Your task to perform on an android device: Go to accessibility settings Image 0: 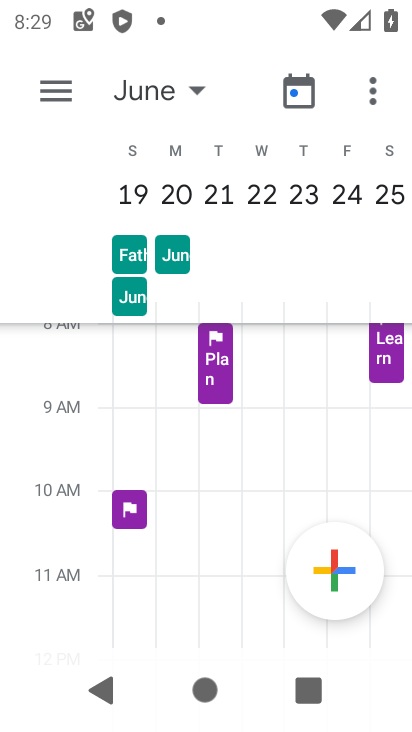
Step 0: press home button
Your task to perform on an android device: Go to accessibility settings Image 1: 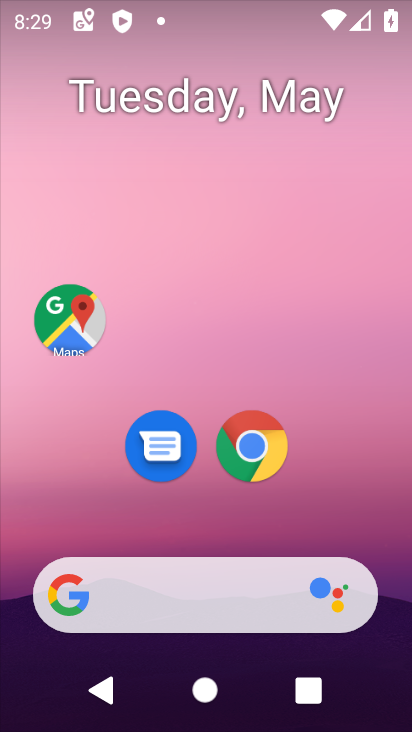
Step 1: drag from (351, 520) to (371, 17)
Your task to perform on an android device: Go to accessibility settings Image 2: 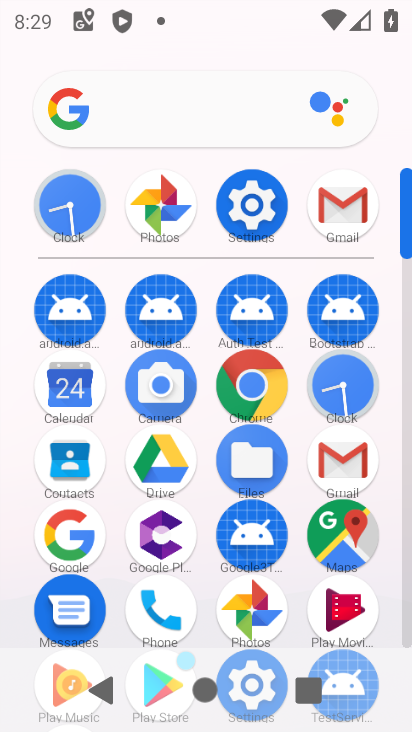
Step 2: click (256, 208)
Your task to perform on an android device: Go to accessibility settings Image 3: 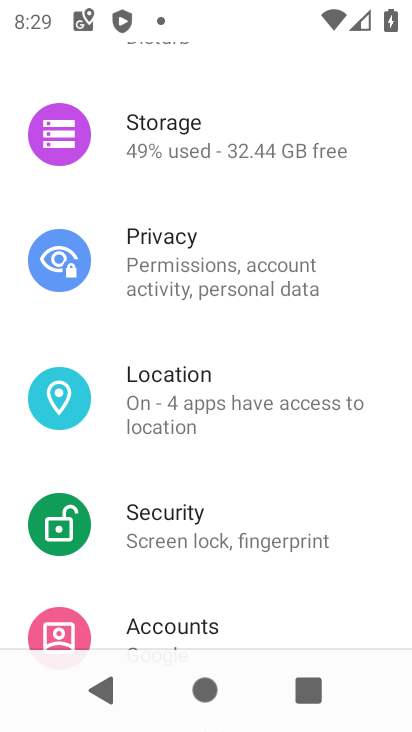
Step 3: drag from (326, 467) to (335, 212)
Your task to perform on an android device: Go to accessibility settings Image 4: 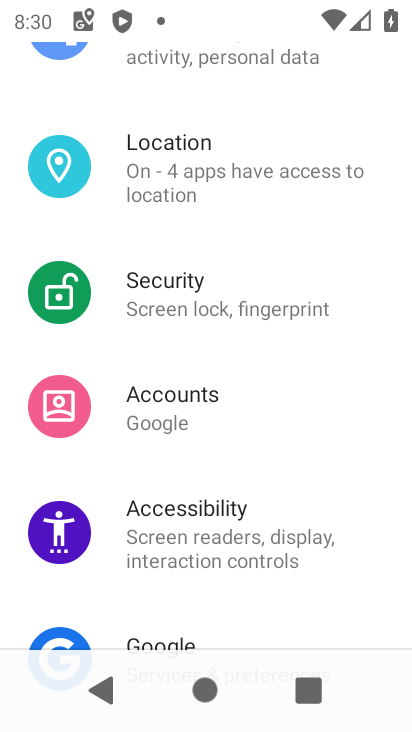
Step 4: click (176, 540)
Your task to perform on an android device: Go to accessibility settings Image 5: 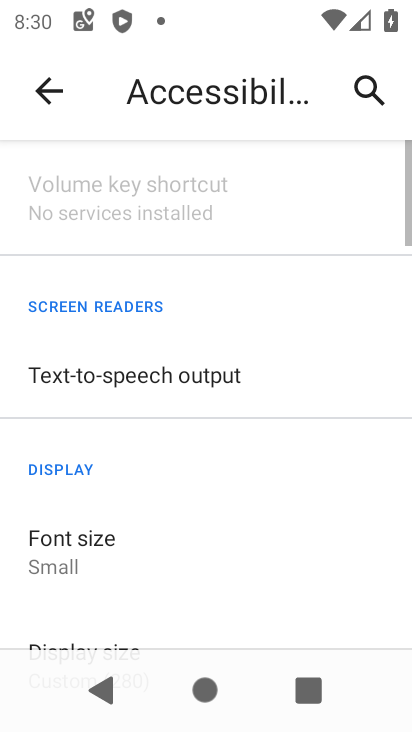
Step 5: task complete